Your task to perform on an android device: Show me recent news Image 0: 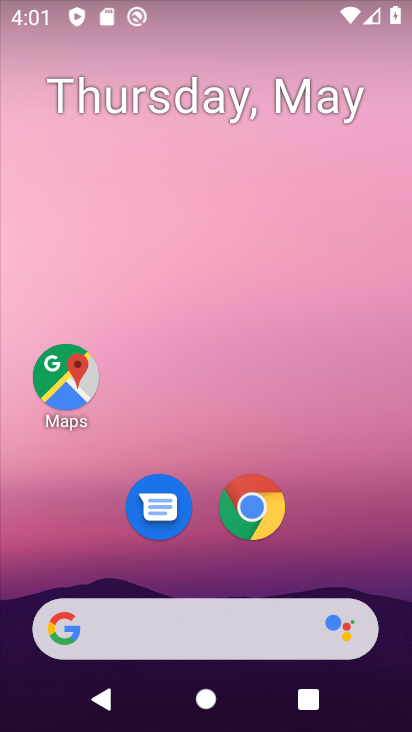
Step 0: click (173, 622)
Your task to perform on an android device: Show me recent news Image 1: 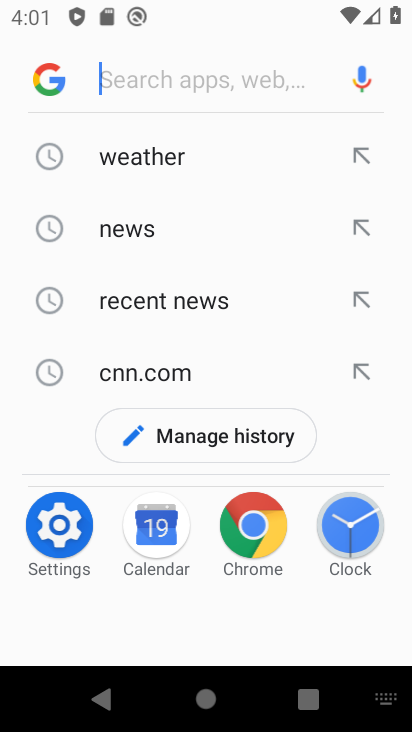
Step 1: type "recent news"
Your task to perform on an android device: Show me recent news Image 2: 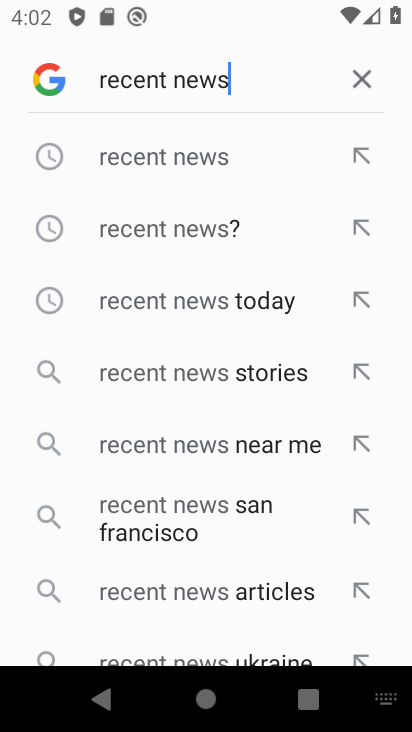
Step 2: click (191, 172)
Your task to perform on an android device: Show me recent news Image 3: 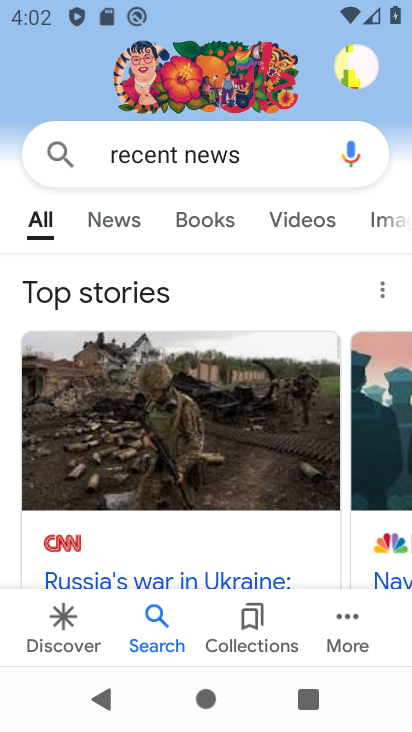
Step 3: click (131, 216)
Your task to perform on an android device: Show me recent news Image 4: 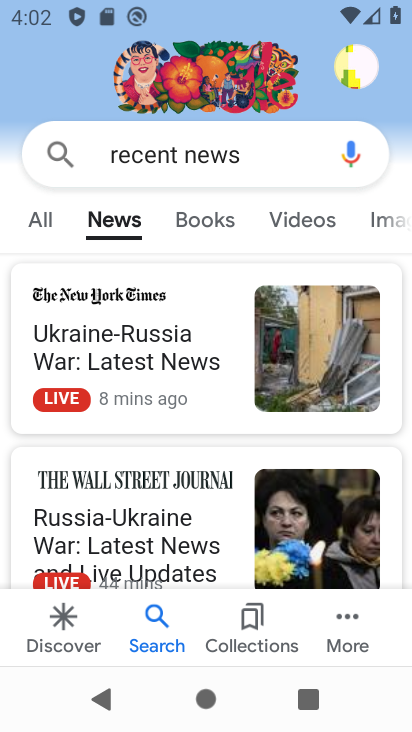
Step 4: task complete